Your task to perform on an android device: open app "DoorDash - Food Delivery" Image 0: 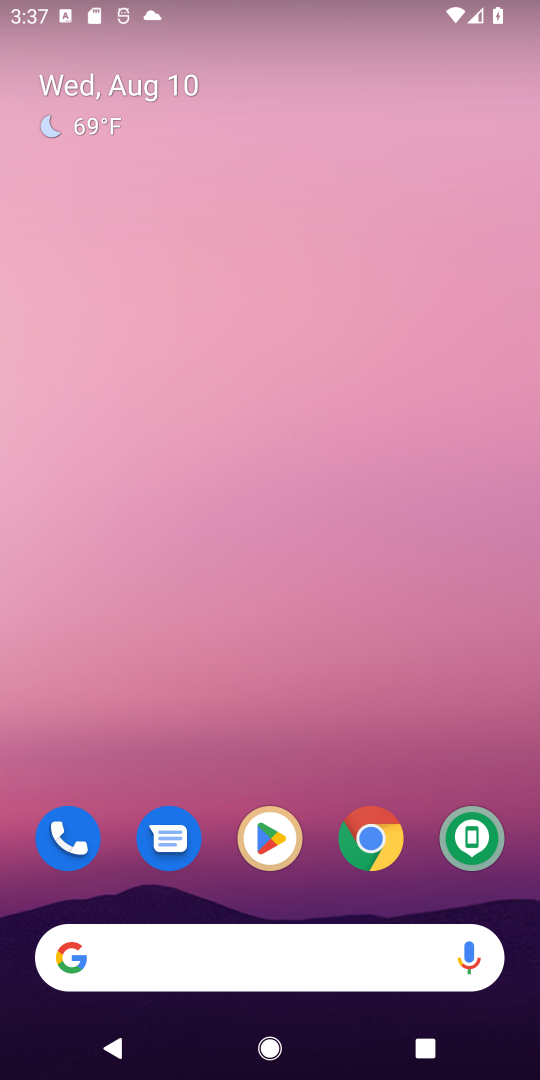
Step 0: click (266, 834)
Your task to perform on an android device: open app "DoorDash - Food Delivery" Image 1: 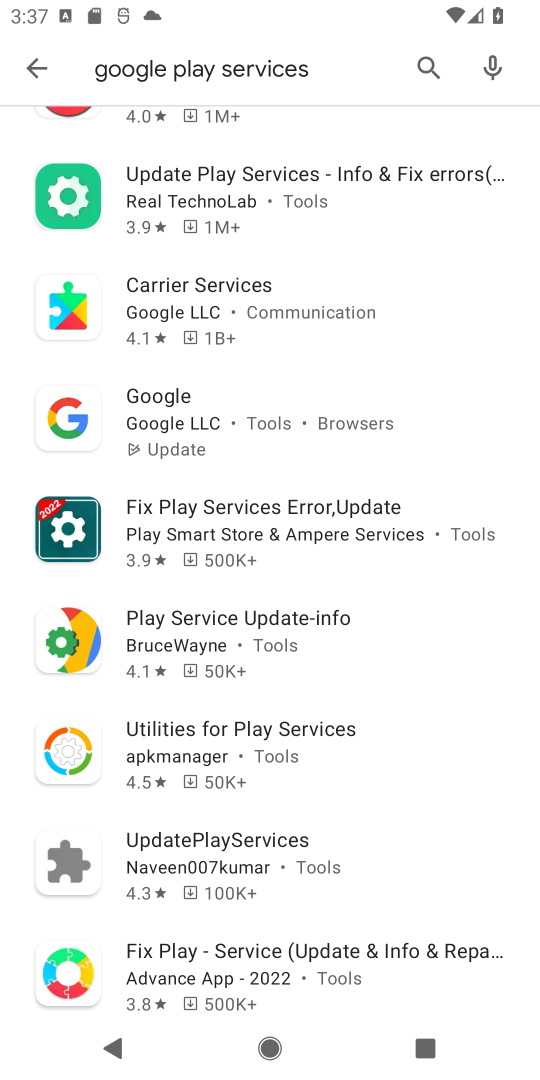
Step 1: click (428, 56)
Your task to perform on an android device: open app "DoorDash - Food Delivery" Image 2: 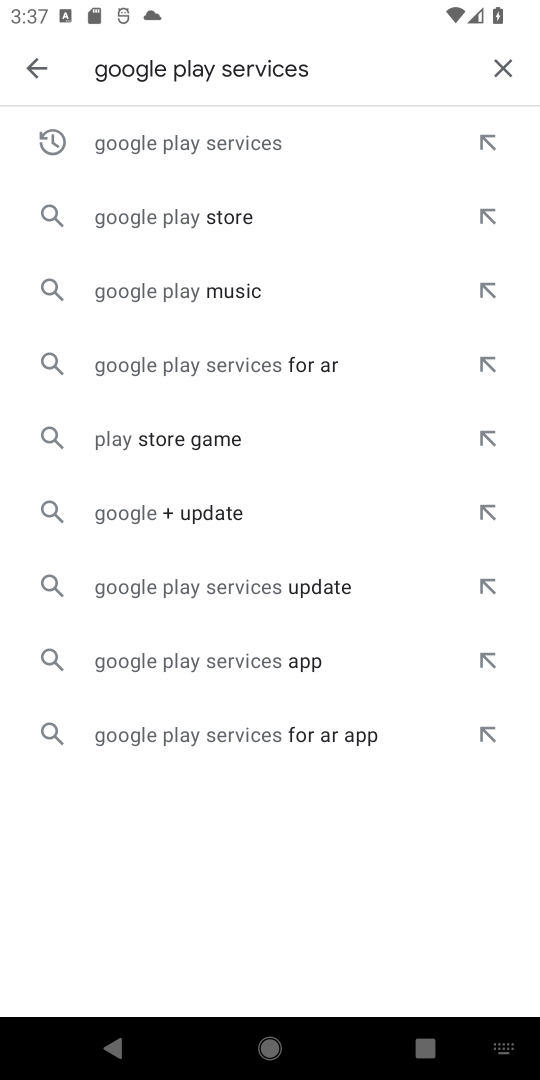
Step 2: click (512, 64)
Your task to perform on an android device: open app "DoorDash - Food Delivery" Image 3: 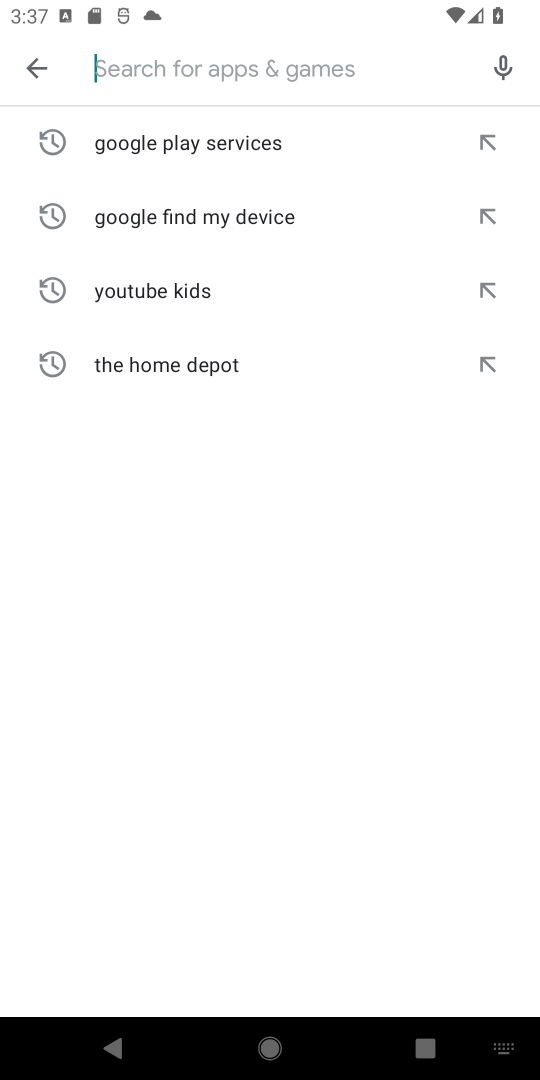
Step 3: type "DoorDash - Food Delivery"
Your task to perform on an android device: open app "DoorDash - Food Delivery" Image 4: 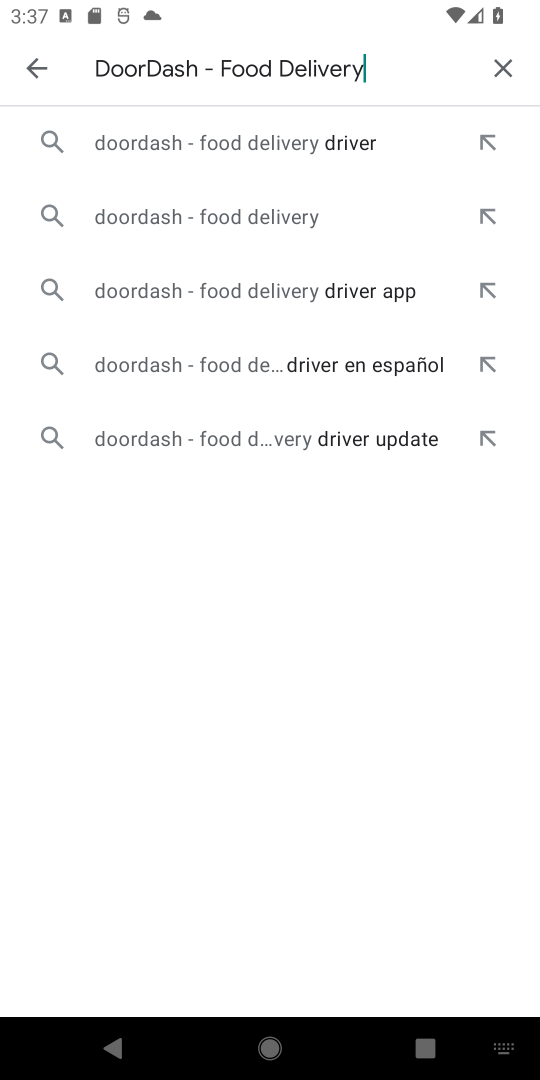
Step 4: click (214, 143)
Your task to perform on an android device: open app "DoorDash - Food Delivery" Image 5: 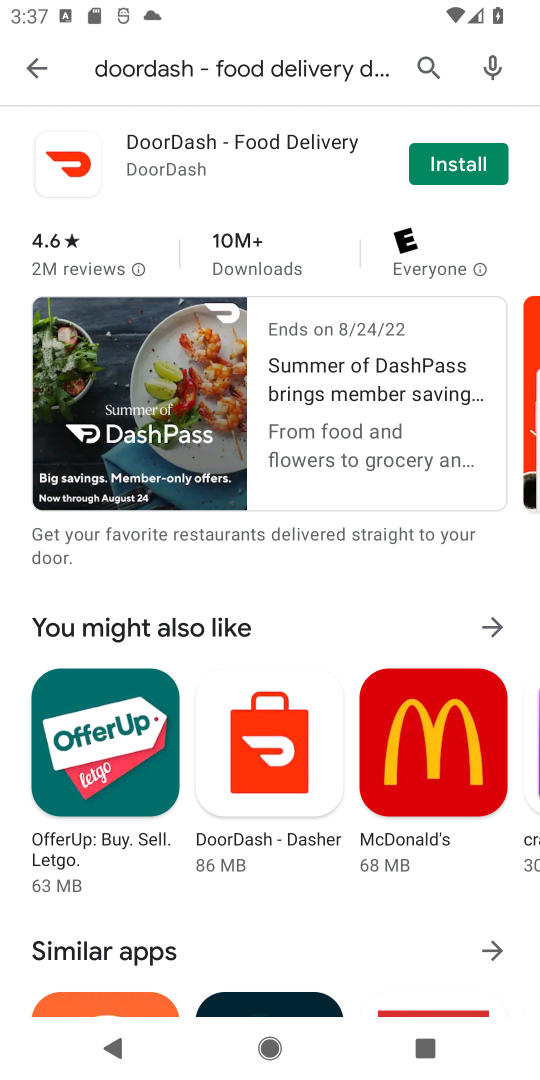
Step 5: task complete